Your task to perform on an android device: Search for Italian restaurants on Maps Image 0: 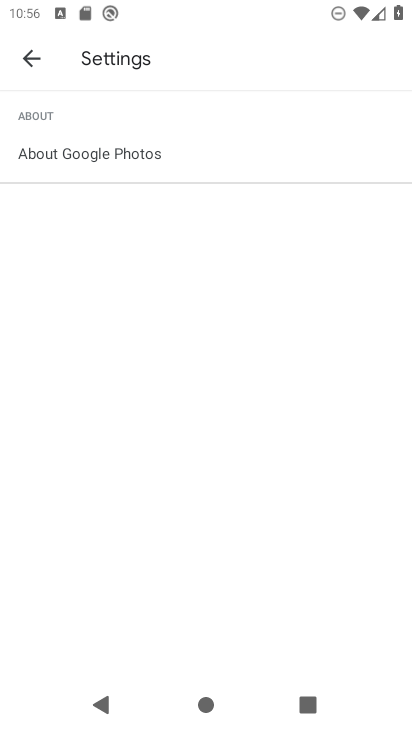
Step 0: press home button
Your task to perform on an android device: Search for Italian restaurants on Maps Image 1: 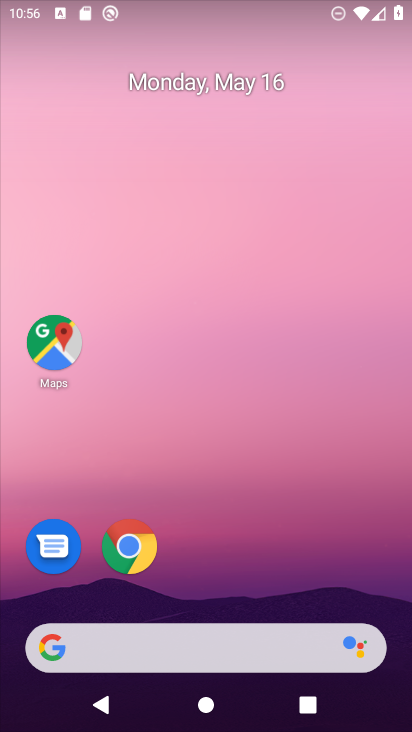
Step 1: click (68, 347)
Your task to perform on an android device: Search for Italian restaurants on Maps Image 2: 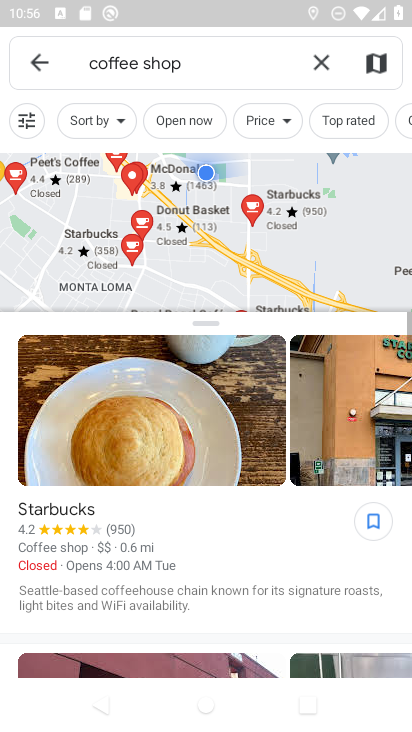
Step 2: click (322, 60)
Your task to perform on an android device: Search for Italian restaurants on Maps Image 3: 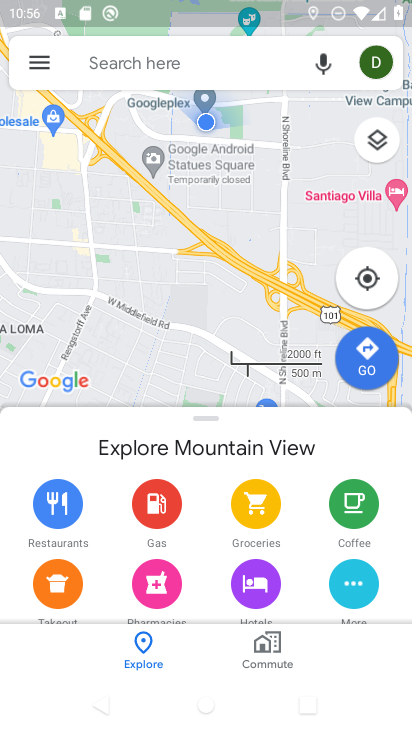
Step 3: click (171, 63)
Your task to perform on an android device: Search for Italian restaurants on Maps Image 4: 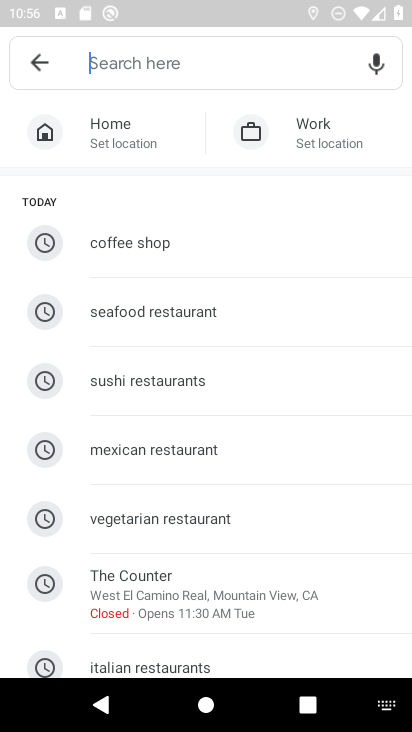
Step 4: click (231, 649)
Your task to perform on an android device: Search for Italian restaurants on Maps Image 5: 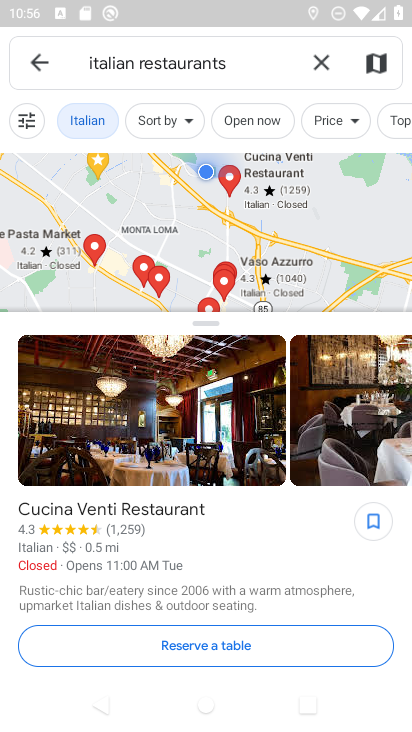
Step 5: task complete